Your task to perform on an android device: Show the shopping cart on costco.com. Search for asus zenbook on costco.com, select the first entry, add it to the cart, then select checkout. Image 0: 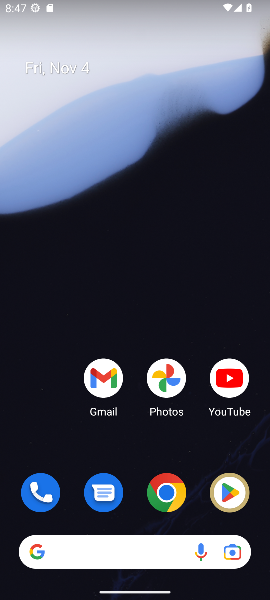
Step 0: drag from (136, 452) to (176, 42)
Your task to perform on an android device: Show the shopping cart on costco.com. Search for asus zenbook on costco.com, select the first entry, add it to the cart, then select checkout. Image 1: 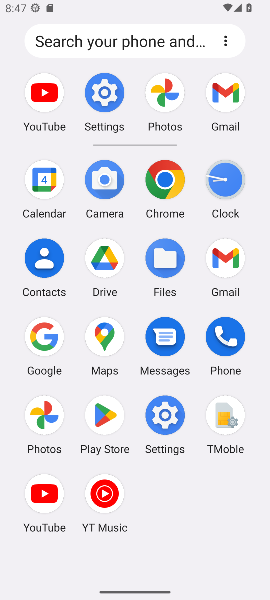
Step 1: click (166, 181)
Your task to perform on an android device: Show the shopping cart on costco.com. Search for asus zenbook on costco.com, select the first entry, add it to the cart, then select checkout. Image 2: 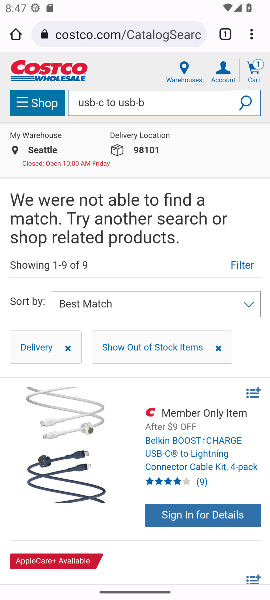
Step 2: click (137, 29)
Your task to perform on an android device: Show the shopping cart on costco.com. Search for asus zenbook on costco.com, select the first entry, add it to the cart, then select checkout. Image 3: 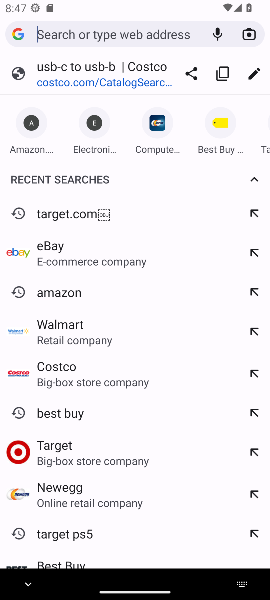
Step 3: type "costco.com"
Your task to perform on an android device: Show the shopping cart on costco.com. Search for asus zenbook on costco.com, select the first entry, add it to the cart, then select checkout. Image 4: 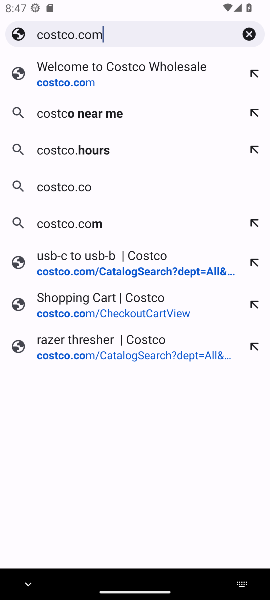
Step 4: press enter
Your task to perform on an android device: Show the shopping cart on costco.com. Search for asus zenbook on costco.com, select the first entry, add it to the cart, then select checkout. Image 5: 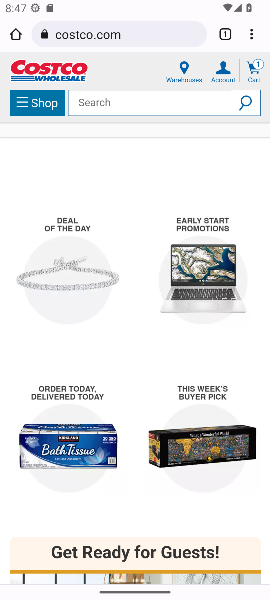
Step 5: drag from (159, 423) to (127, 457)
Your task to perform on an android device: Show the shopping cart on costco.com. Search for asus zenbook on costco.com, select the first entry, add it to the cart, then select checkout. Image 6: 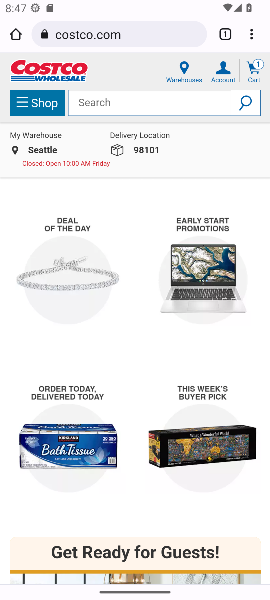
Step 6: click (259, 66)
Your task to perform on an android device: Show the shopping cart on costco.com. Search for asus zenbook on costco.com, select the first entry, add it to the cart, then select checkout. Image 7: 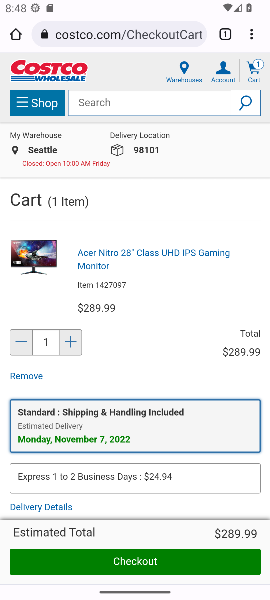
Step 7: click (152, 102)
Your task to perform on an android device: Show the shopping cart on costco.com. Search for asus zenbook on costco.com, select the first entry, add it to the cart, then select checkout. Image 8: 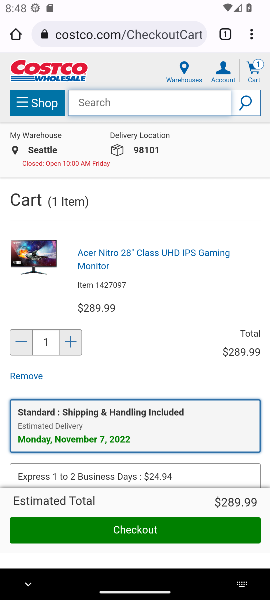
Step 8: type "asus zenbook"
Your task to perform on an android device: Show the shopping cart on costco.com. Search for asus zenbook on costco.com, select the first entry, add it to the cart, then select checkout. Image 9: 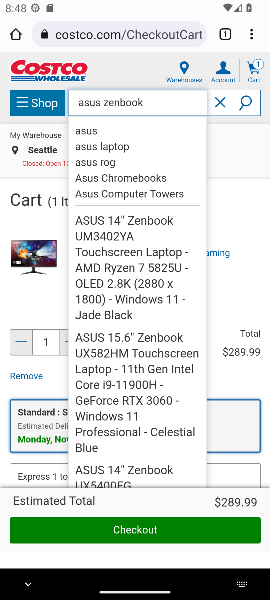
Step 9: press enter
Your task to perform on an android device: Show the shopping cart on costco.com. Search for asus zenbook on costco.com, select the first entry, add it to the cart, then select checkout. Image 10: 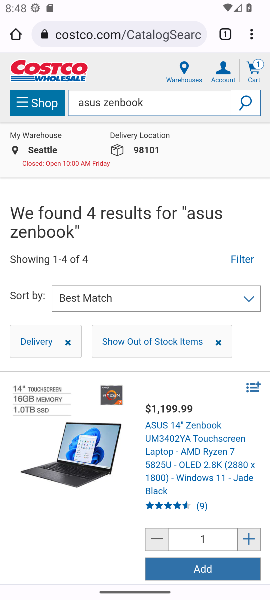
Step 10: drag from (217, 402) to (226, 250)
Your task to perform on an android device: Show the shopping cart on costco.com. Search for asus zenbook on costco.com, select the first entry, add it to the cart, then select checkout. Image 11: 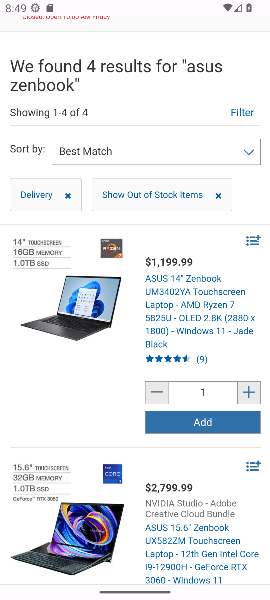
Step 11: click (223, 420)
Your task to perform on an android device: Show the shopping cart on costco.com. Search for asus zenbook on costco.com, select the first entry, add it to the cart, then select checkout. Image 12: 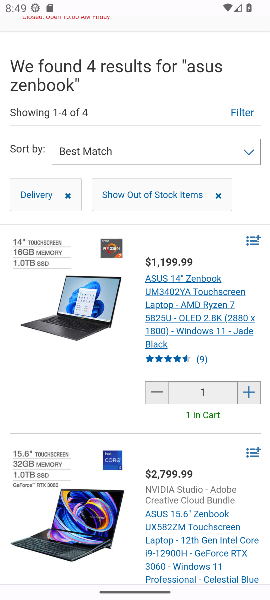
Step 12: drag from (193, 131) to (212, 403)
Your task to perform on an android device: Show the shopping cart on costco.com. Search for asus zenbook on costco.com, select the first entry, add it to the cart, then select checkout. Image 13: 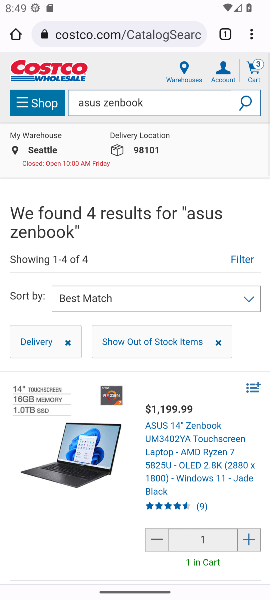
Step 13: click (254, 65)
Your task to perform on an android device: Show the shopping cart on costco.com. Search for asus zenbook on costco.com, select the first entry, add it to the cart, then select checkout. Image 14: 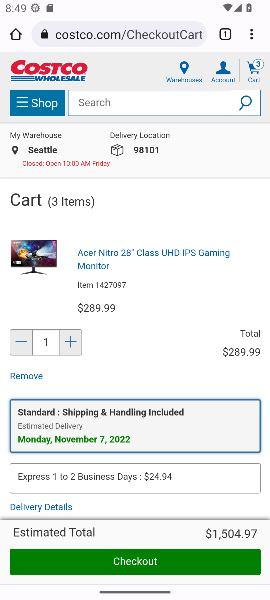
Step 14: click (160, 560)
Your task to perform on an android device: Show the shopping cart on costco.com. Search for asus zenbook on costco.com, select the first entry, add it to the cart, then select checkout. Image 15: 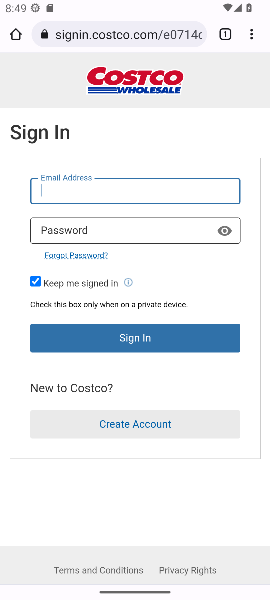
Step 15: task complete